Your task to perform on an android device: toggle location history Image 0: 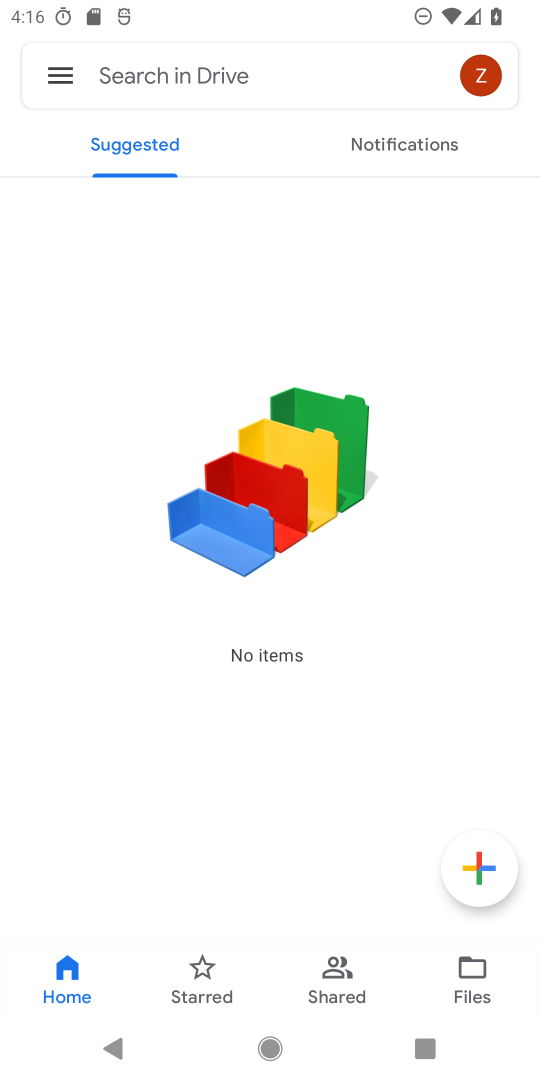
Step 0: press home button
Your task to perform on an android device: toggle location history Image 1: 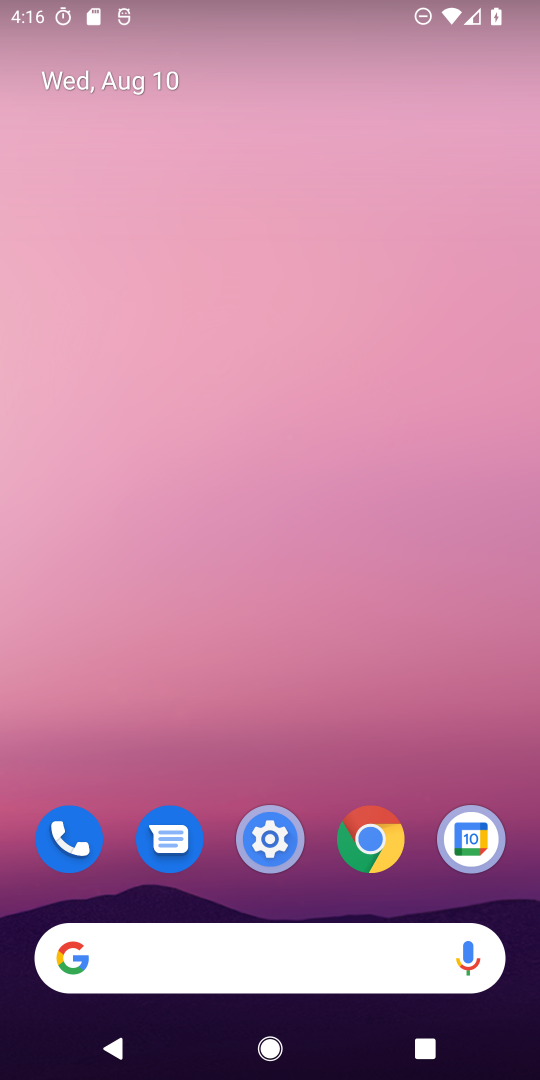
Step 1: click (279, 836)
Your task to perform on an android device: toggle location history Image 2: 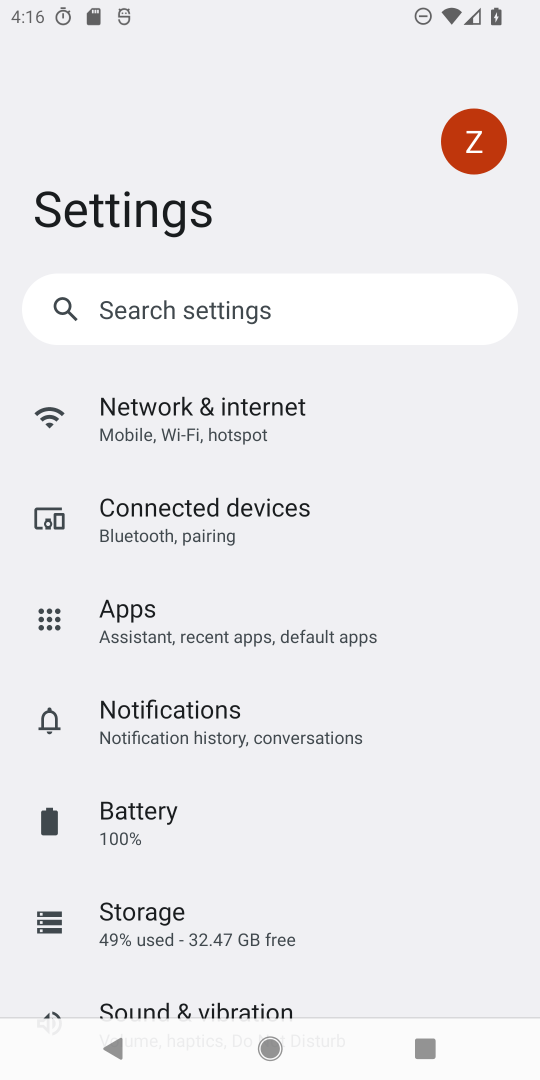
Step 2: drag from (403, 984) to (411, 629)
Your task to perform on an android device: toggle location history Image 3: 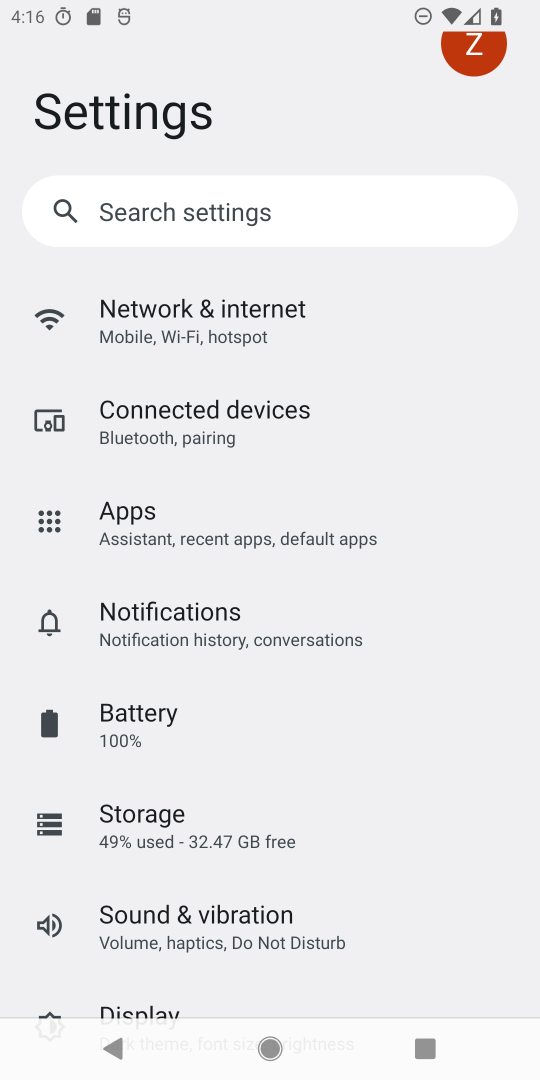
Step 3: drag from (407, 966) to (452, 604)
Your task to perform on an android device: toggle location history Image 4: 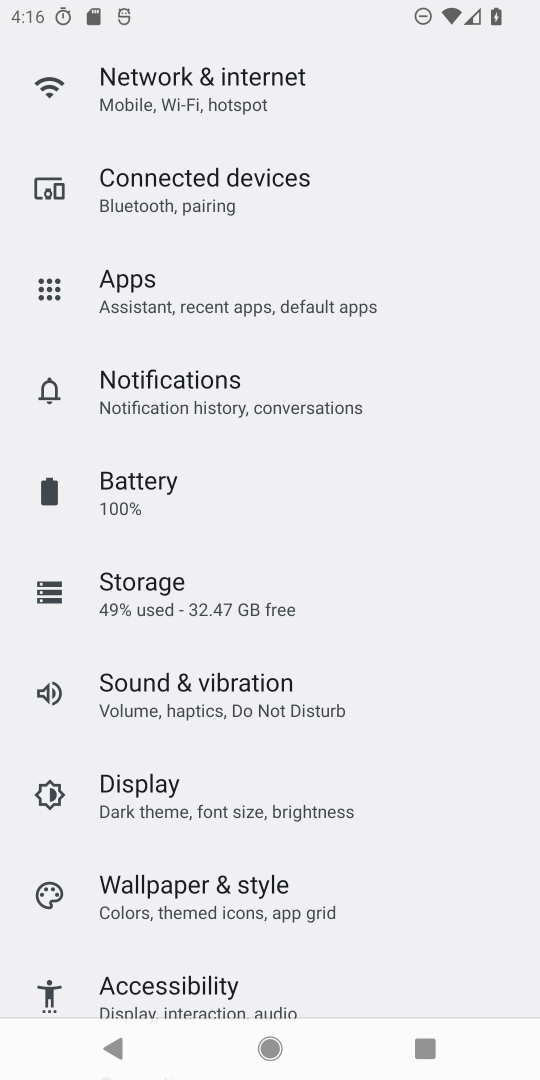
Step 4: drag from (378, 941) to (385, 579)
Your task to perform on an android device: toggle location history Image 5: 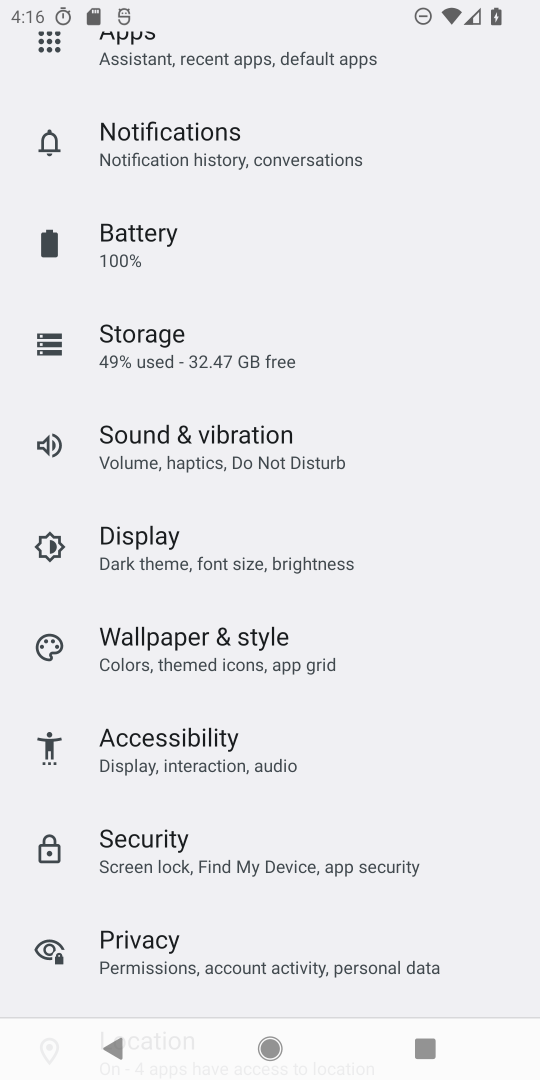
Step 5: click (270, 143)
Your task to perform on an android device: toggle location history Image 6: 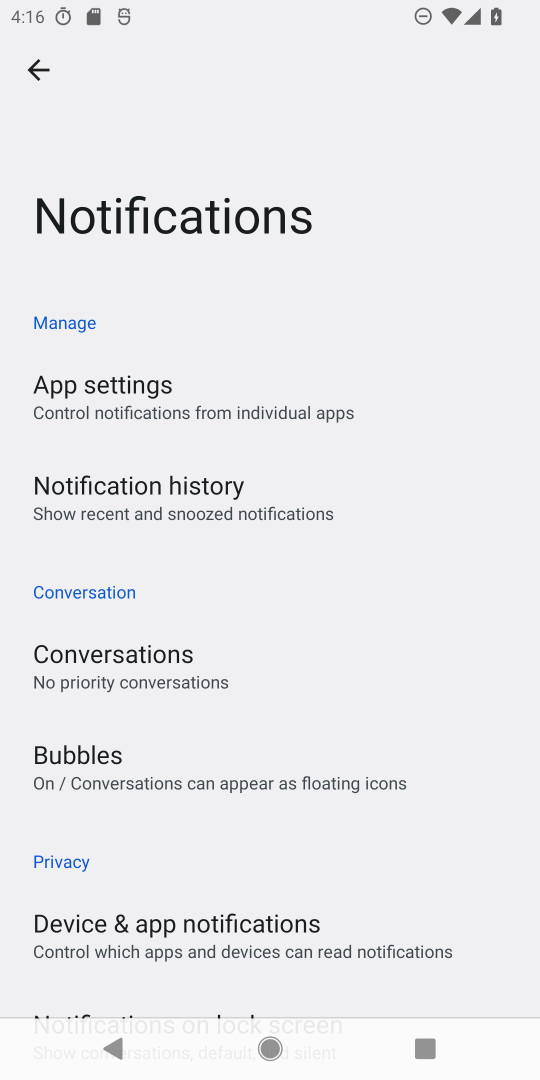
Step 6: task complete